Your task to perform on an android device: Open Maps and search for coffee Image 0: 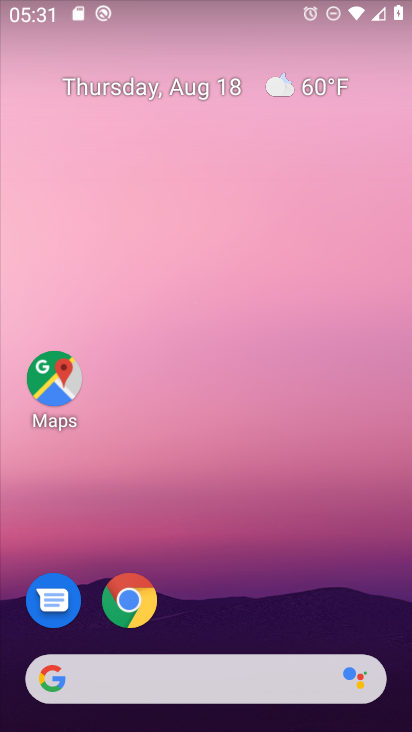
Step 0: press home button
Your task to perform on an android device: Open Maps and search for coffee Image 1: 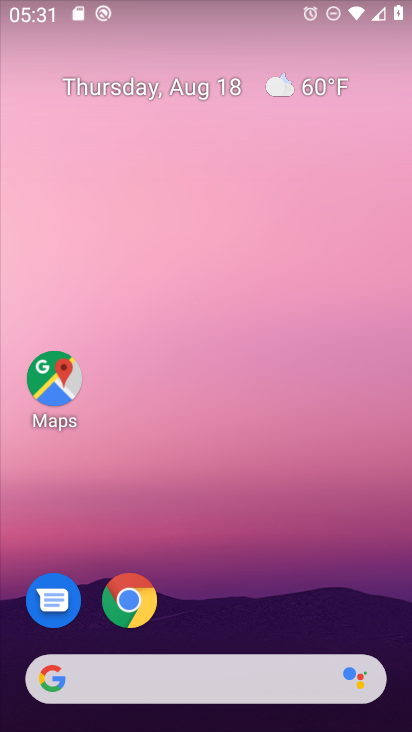
Step 1: click (47, 387)
Your task to perform on an android device: Open Maps and search for coffee Image 2: 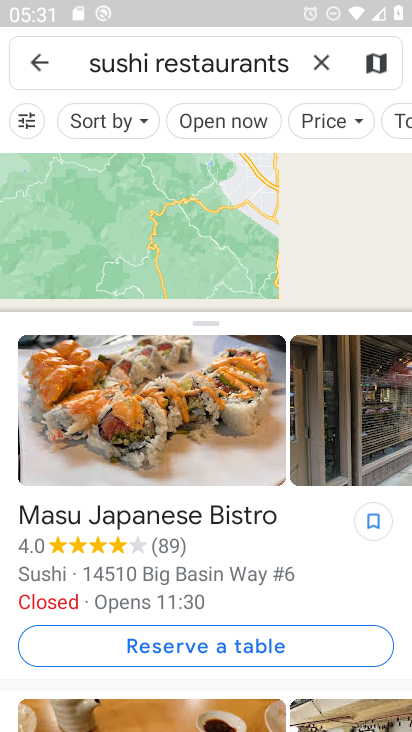
Step 2: press back button
Your task to perform on an android device: Open Maps and search for coffee Image 3: 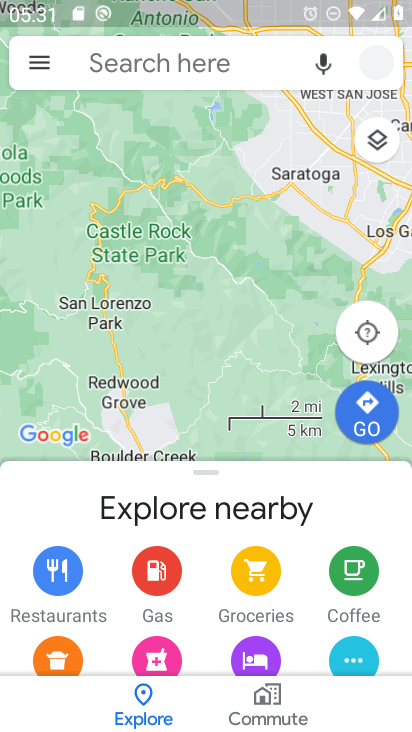
Step 3: click (165, 61)
Your task to perform on an android device: Open Maps and search for coffee Image 4: 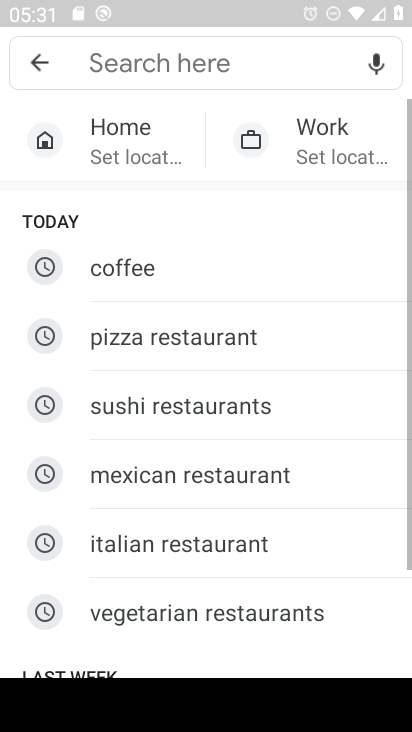
Step 4: click (135, 268)
Your task to perform on an android device: Open Maps and search for coffee Image 5: 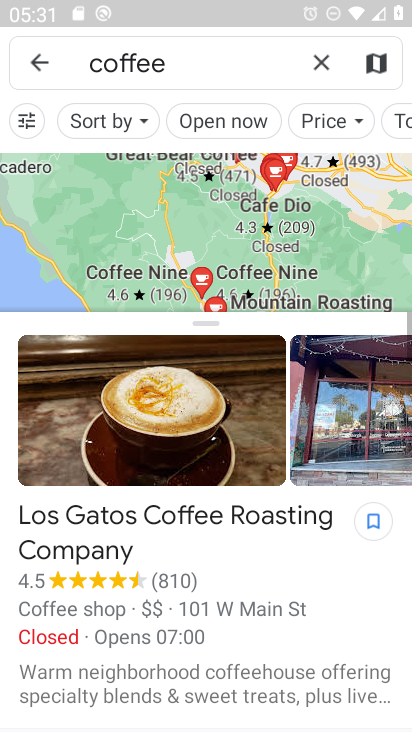
Step 5: task complete